Your task to perform on an android device: allow notifications from all sites in the chrome app Image 0: 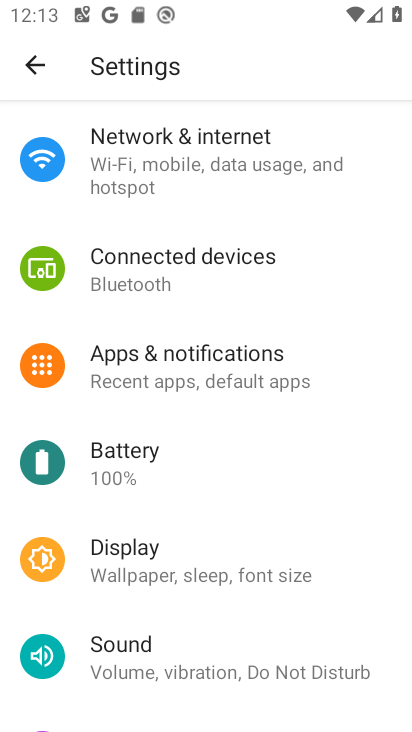
Step 0: press home button
Your task to perform on an android device: allow notifications from all sites in the chrome app Image 1: 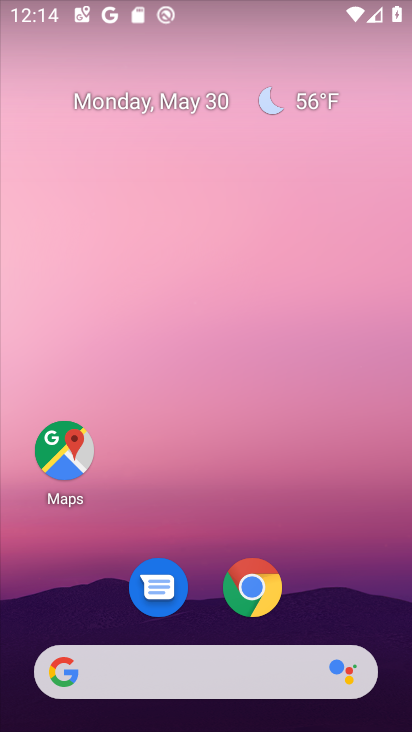
Step 1: click (250, 585)
Your task to perform on an android device: allow notifications from all sites in the chrome app Image 2: 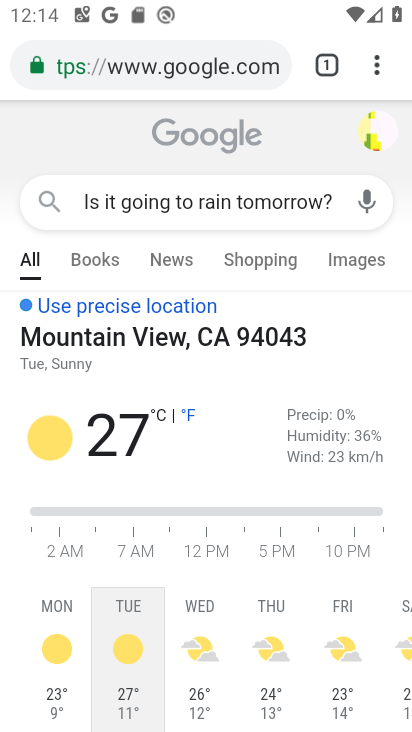
Step 2: click (372, 71)
Your task to perform on an android device: allow notifications from all sites in the chrome app Image 3: 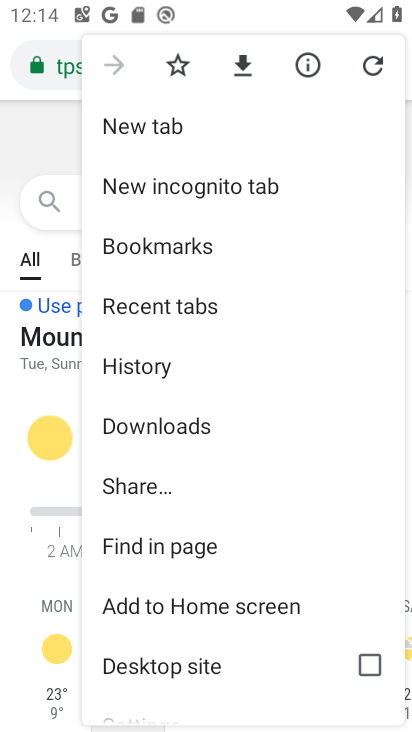
Step 3: drag from (241, 651) to (222, 305)
Your task to perform on an android device: allow notifications from all sites in the chrome app Image 4: 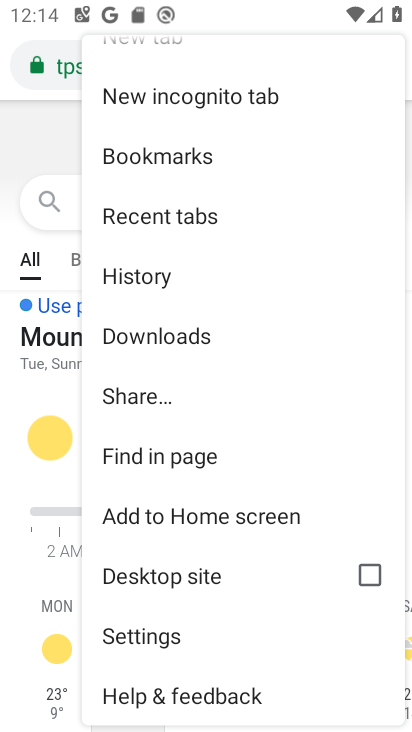
Step 4: click (173, 632)
Your task to perform on an android device: allow notifications from all sites in the chrome app Image 5: 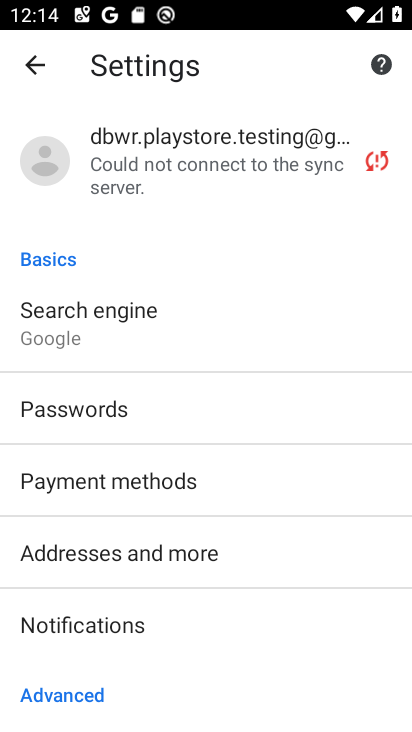
Step 5: drag from (182, 695) to (183, 334)
Your task to perform on an android device: allow notifications from all sites in the chrome app Image 6: 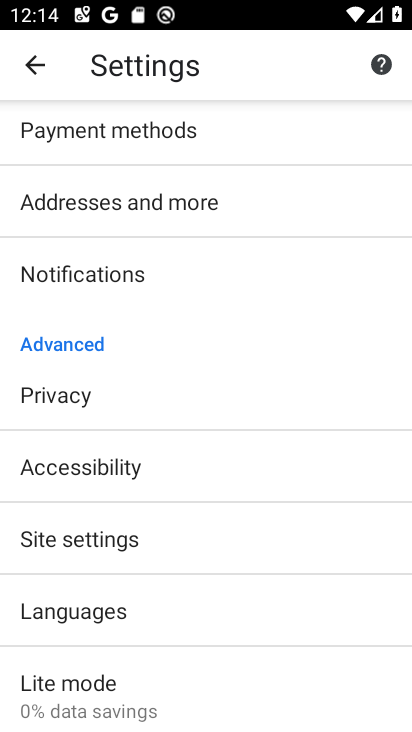
Step 6: click (156, 550)
Your task to perform on an android device: allow notifications from all sites in the chrome app Image 7: 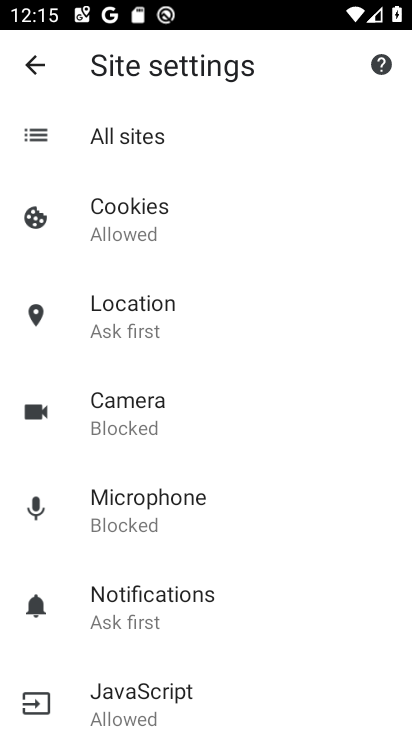
Step 7: click (183, 604)
Your task to perform on an android device: allow notifications from all sites in the chrome app Image 8: 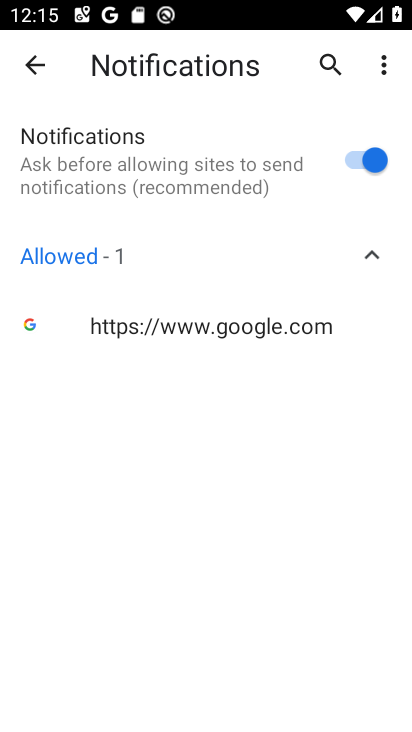
Step 8: task complete